Your task to perform on an android device: see tabs open on other devices in the chrome app Image 0: 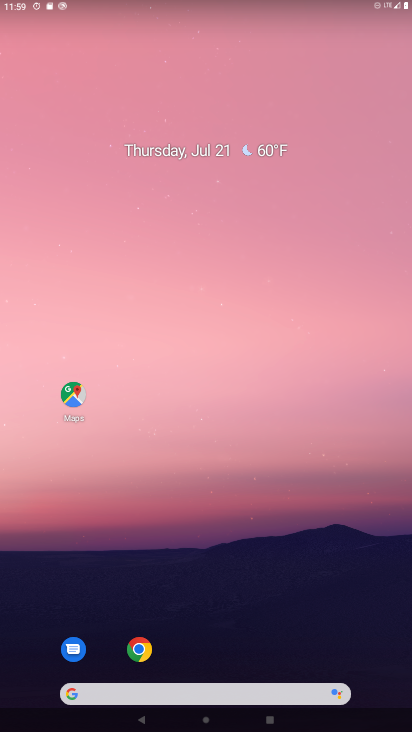
Step 0: click (146, 650)
Your task to perform on an android device: see tabs open on other devices in the chrome app Image 1: 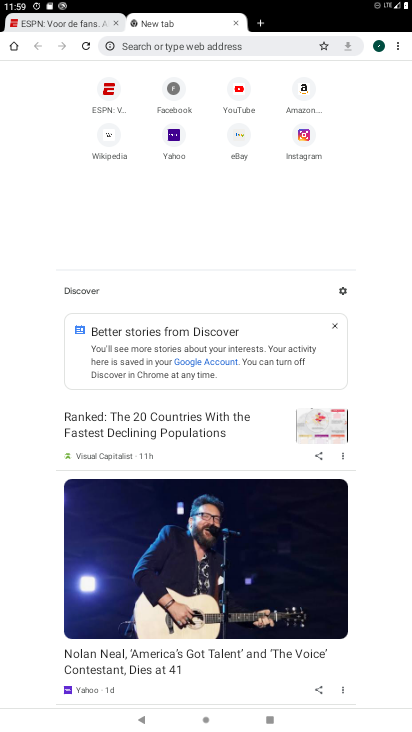
Step 1: click (400, 42)
Your task to perform on an android device: see tabs open on other devices in the chrome app Image 2: 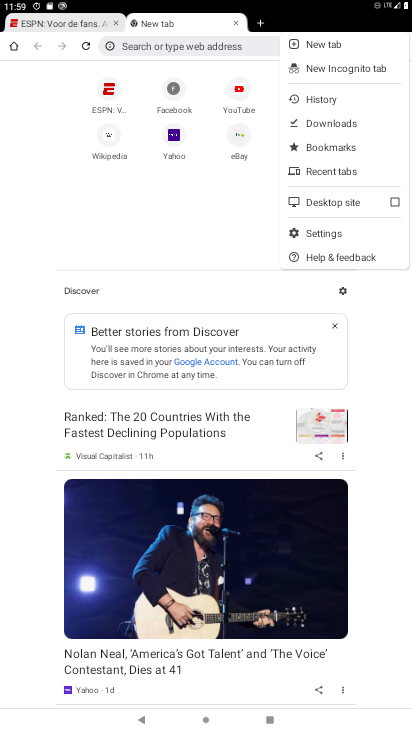
Step 2: click (312, 228)
Your task to perform on an android device: see tabs open on other devices in the chrome app Image 3: 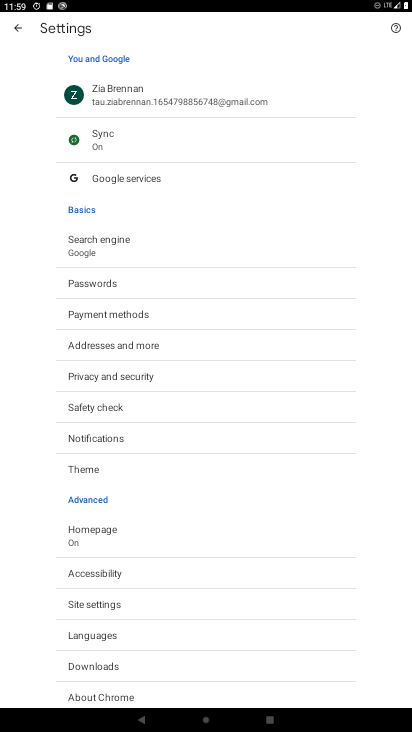
Step 3: click (17, 30)
Your task to perform on an android device: see tabs open on other devices in the chrome app Image 4: 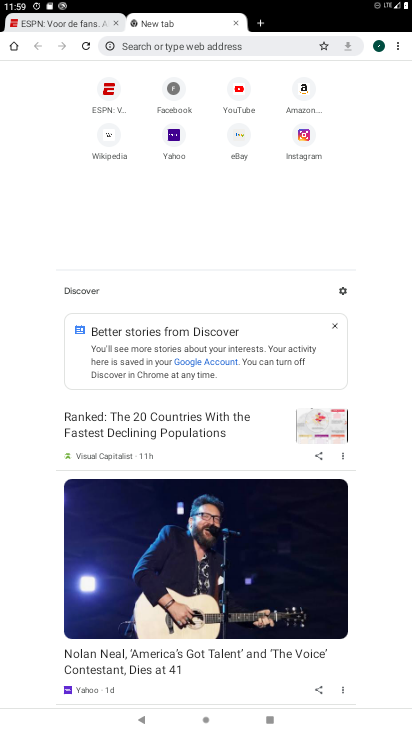
Step 4: click (398, 42)
Your task to perform on an android device: see tabs open on other devices in the chrome app Image 5: 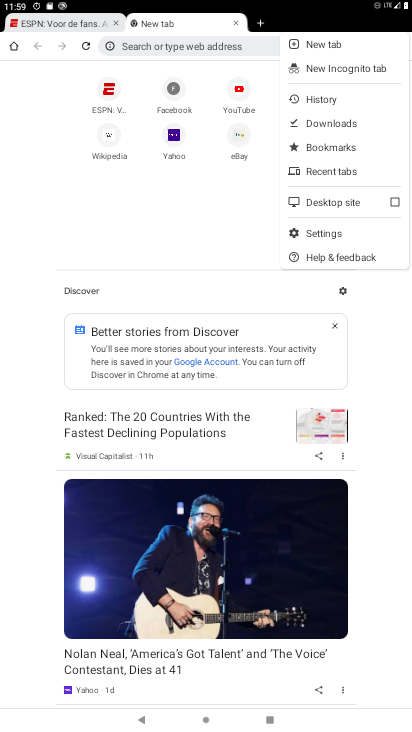
Step 5: click (323, 170)
Your task to perform on an android device: see tabs open on other devices in the chrome app Image 6: 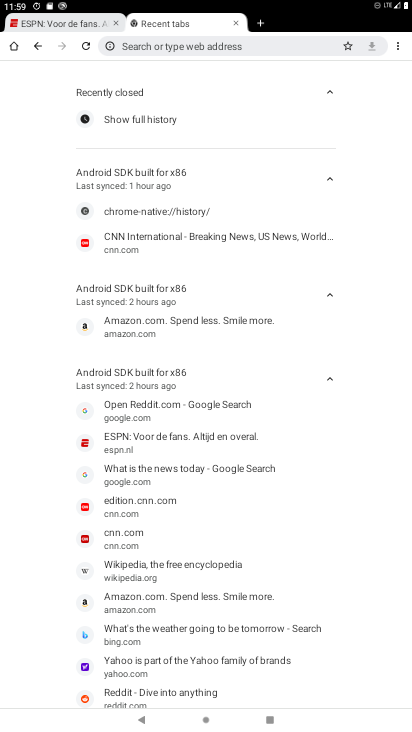
Step 6: task complete